Your task to perform on an android device: Open display settings Image 0: 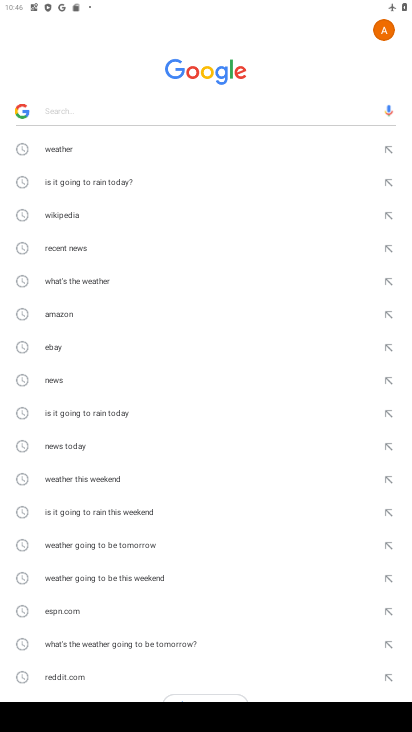
Step 0: press home button
Your task to perform on an android device: Open display settings Image 1: 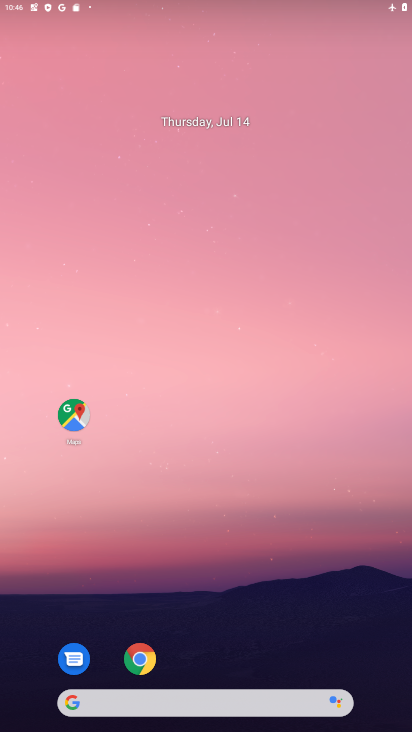
Step 1: drag from (288, 628) to (317, 137)
Your task to perform on an android device: Open display settings Image 2: 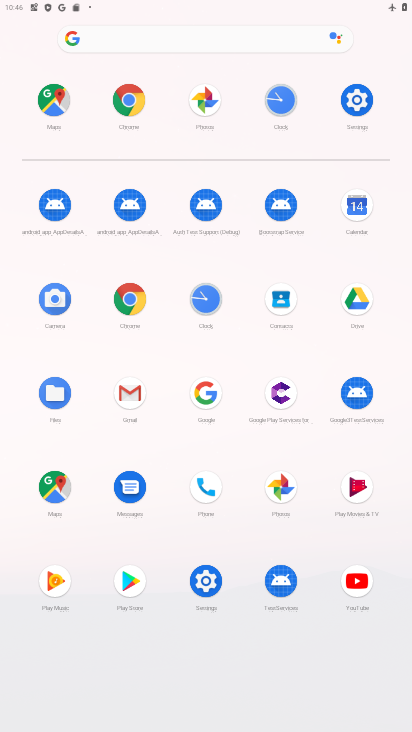
Step 2: click (362, 102)
Your task to perform on an android device: Open display settings Image 3: 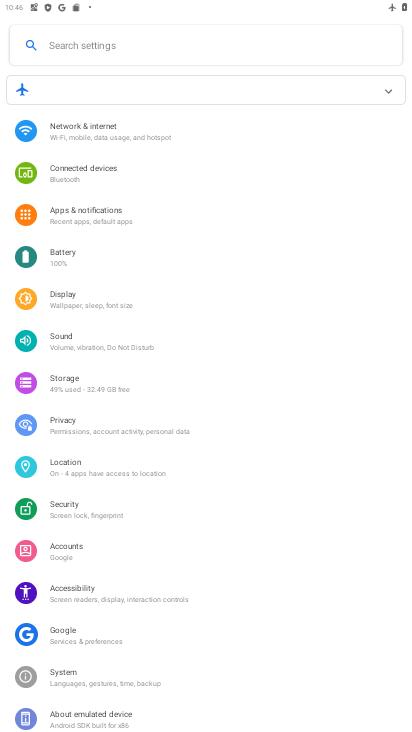
Step 3: click (88, 296)
Your task to perform on an android device: Open display settings Image 4: 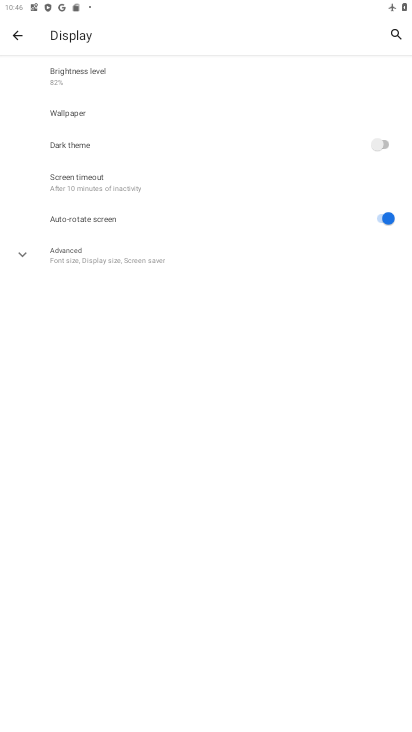
Step 4: task complete